Your task to perform on an android device: Open Google Chrome and click the shortcut for Amazon.com Image 0: 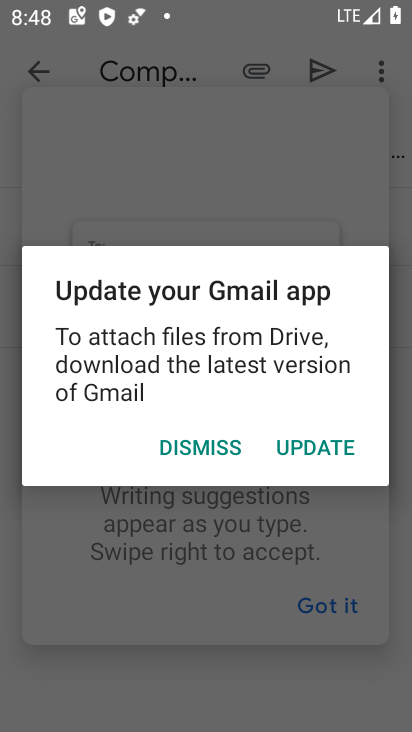
Step 0: press home button
Your task to perform on an android device: Open Google Chrome and click the shortcut for Amazon.com Image 1: 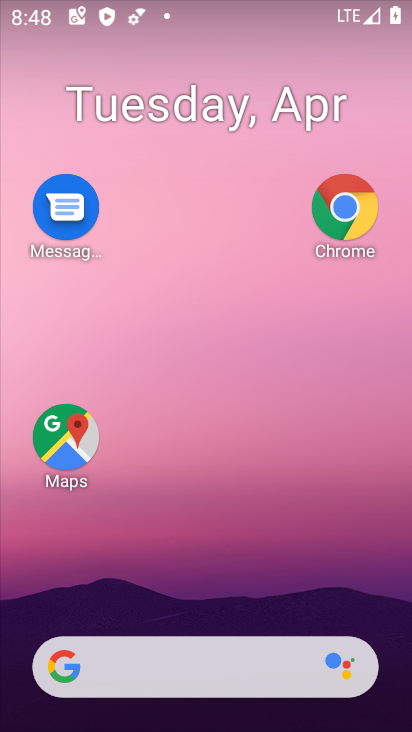
Step 1: drag from (186, 628) to (291, 22)
Your task to perform on an android device: Open Google Chrome and click the shortcut for Amazon.com Image 2: 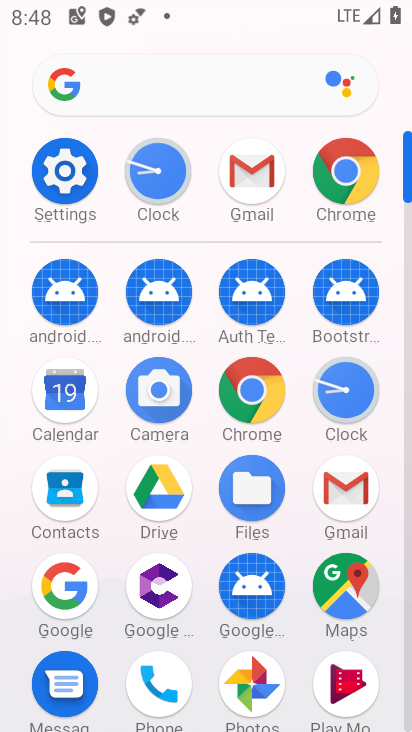
Step 2: click (257, 407)
Your task to perform on an android device: Open Google Chrome and click the shortcut for Amazon.com Image 3: 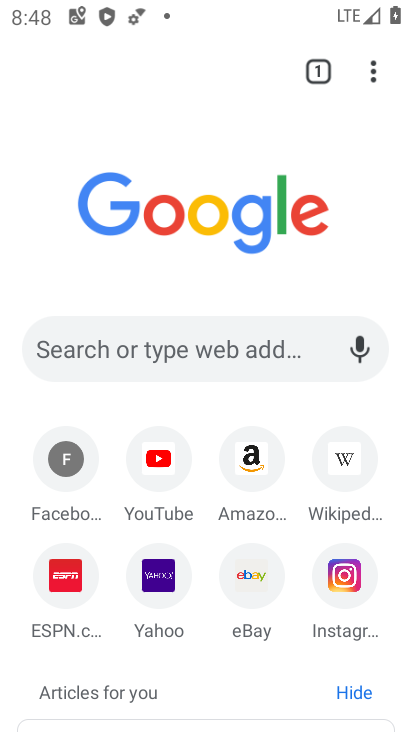
Step 3: click (260, 451)
Your task to perform on an android device: Open Google Chrome and click the shortcut for Amazon.com Image 4: 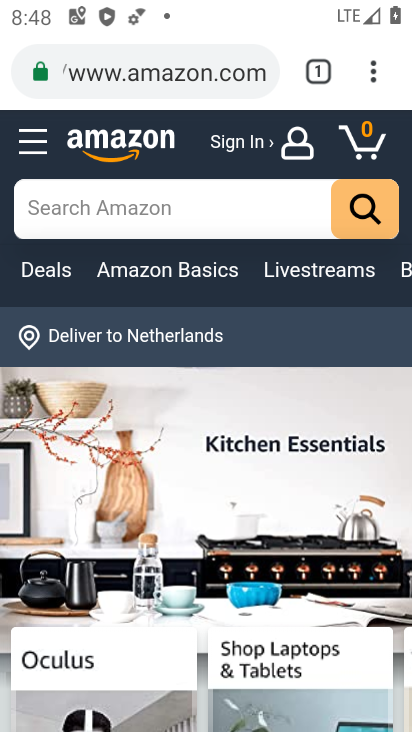
Step 4: task complete